Your task to perform on an android device: toggle translation in the chrome app Image 0: 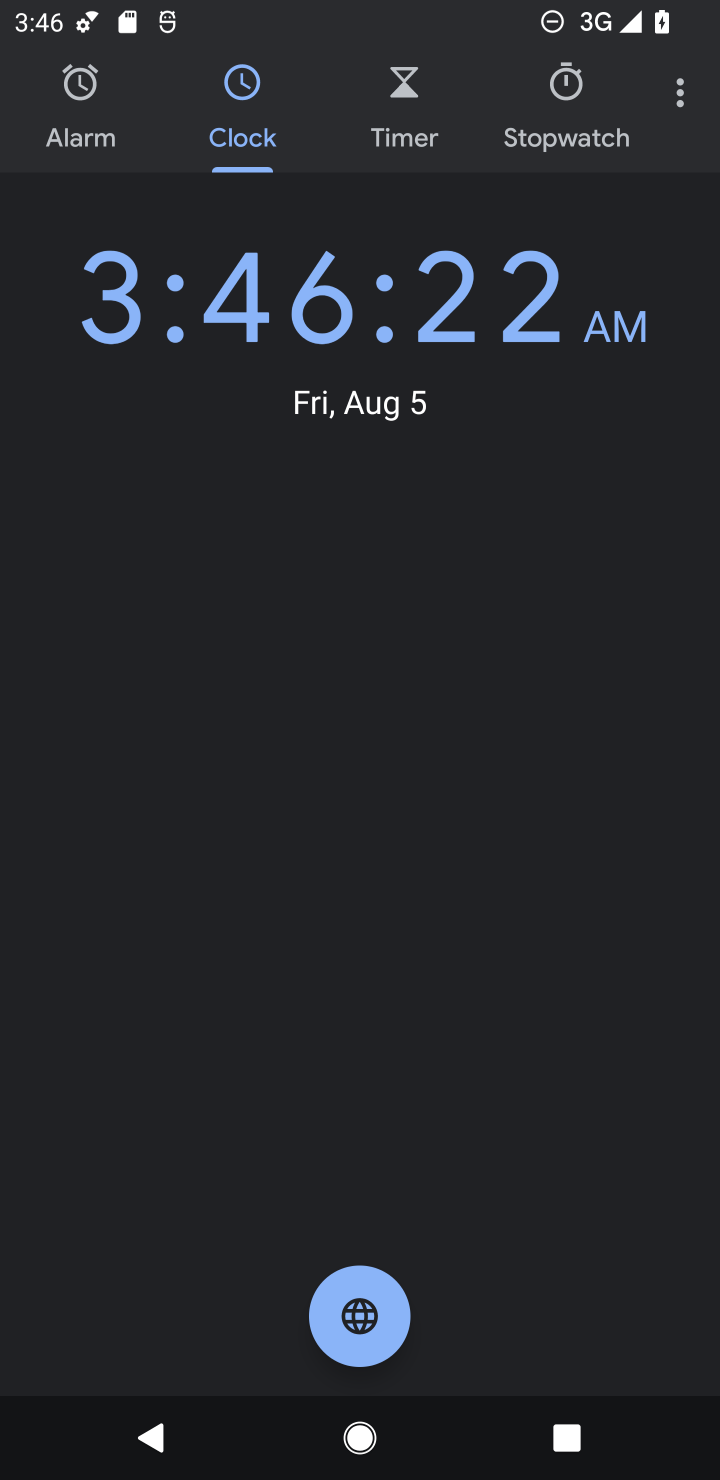
Step 0: press home button
Your task to perform on an android device: toggle translation in the chrome app Image 1: 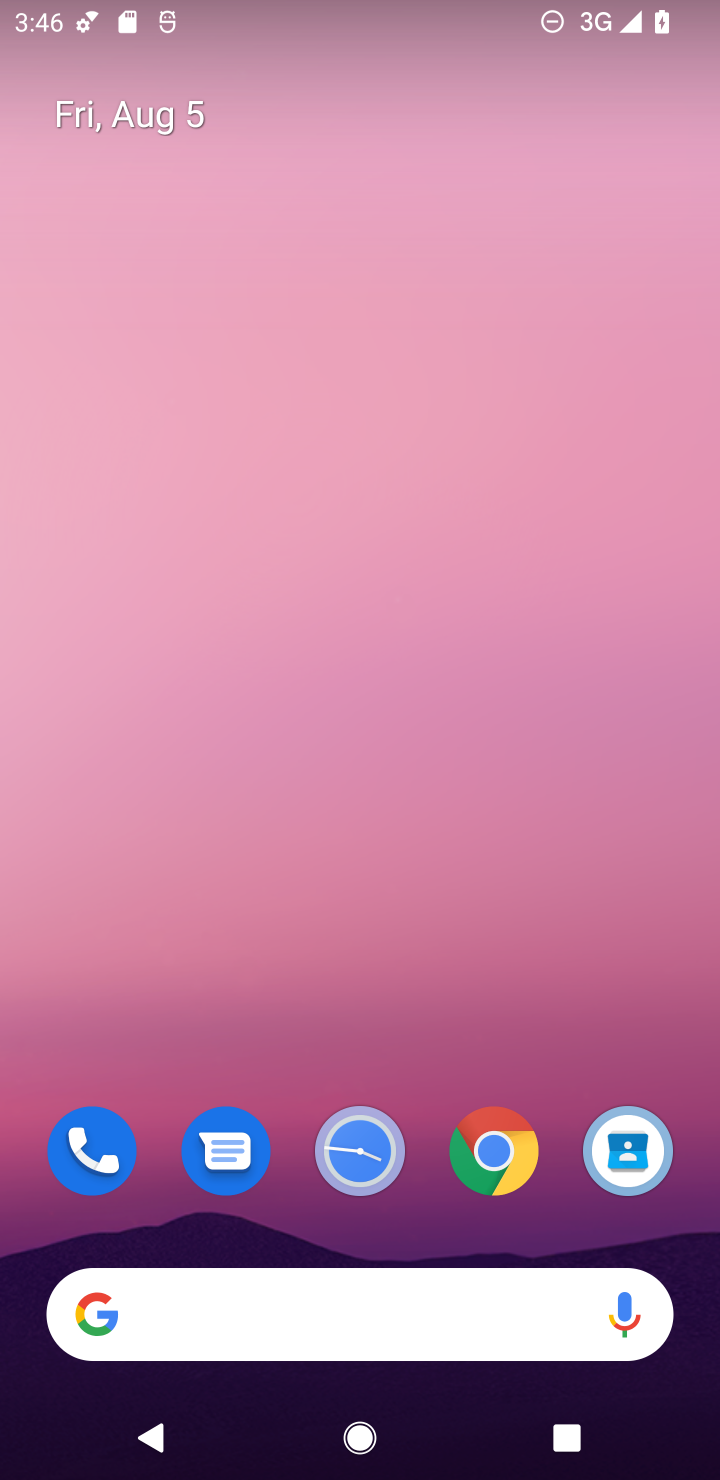
Step 1: click (513, 1160)
Your task to perform on an android device: toggle translation in the chrome app Image 2: 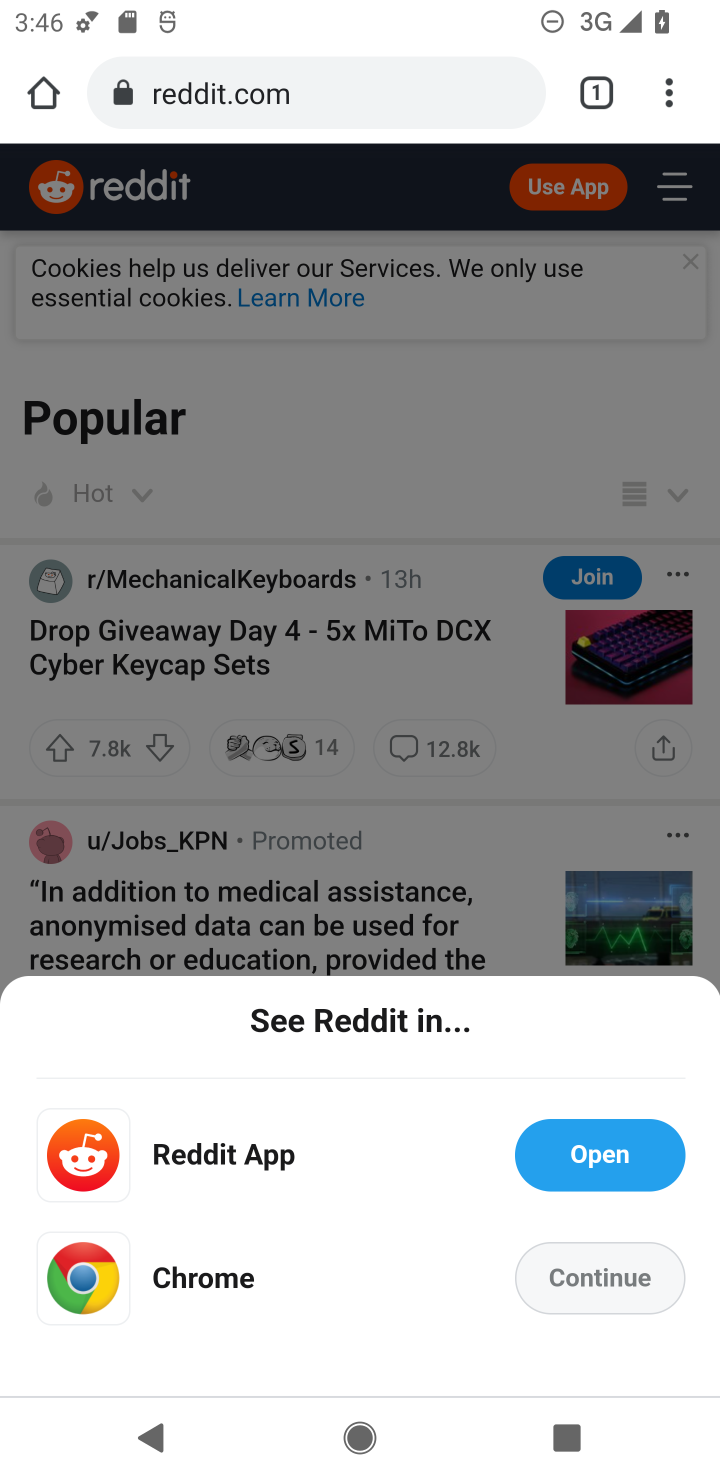
Step 2: click (682, 89)
Your task to perform on an android device: toggle translation in the chrome app Image 3: 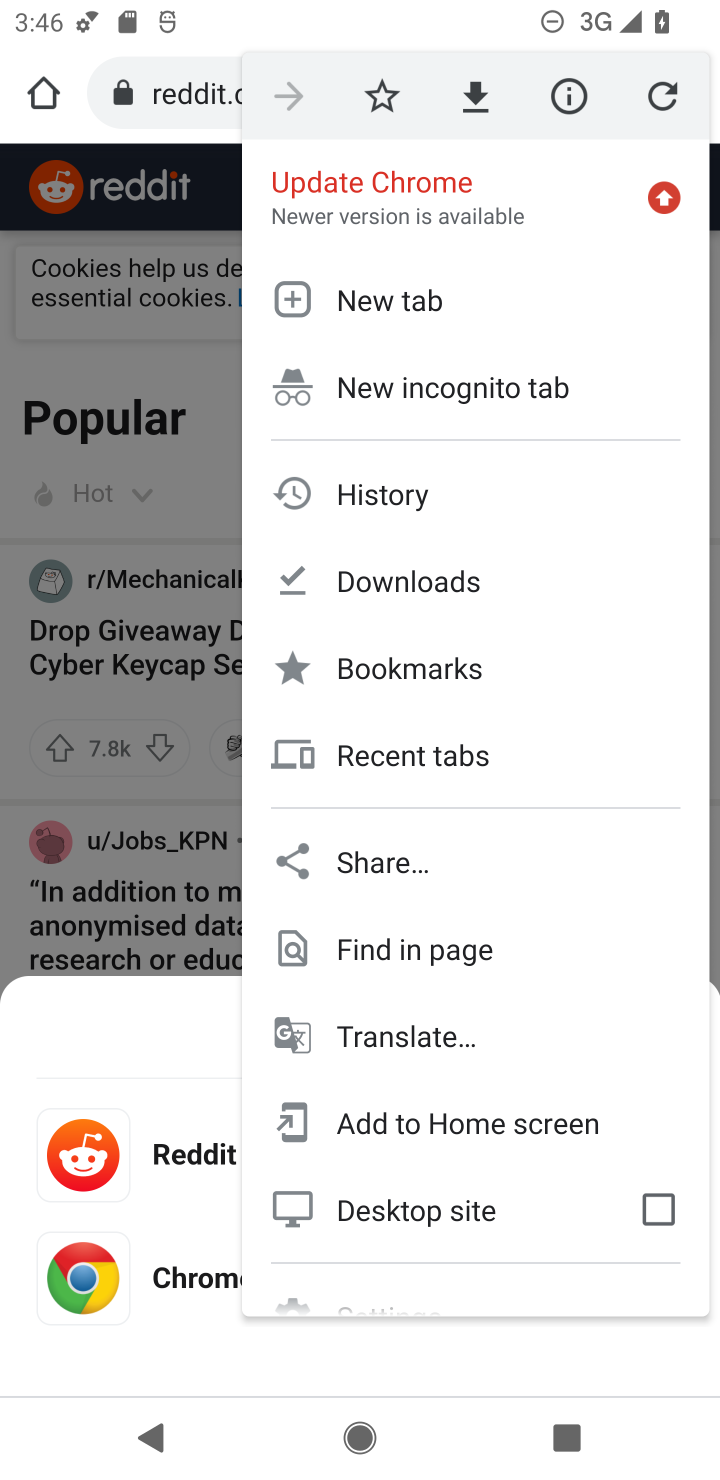
Step 3: click (452, 1299)
Your task to perform on an android device: toggle translation in the chrome app Image 4: 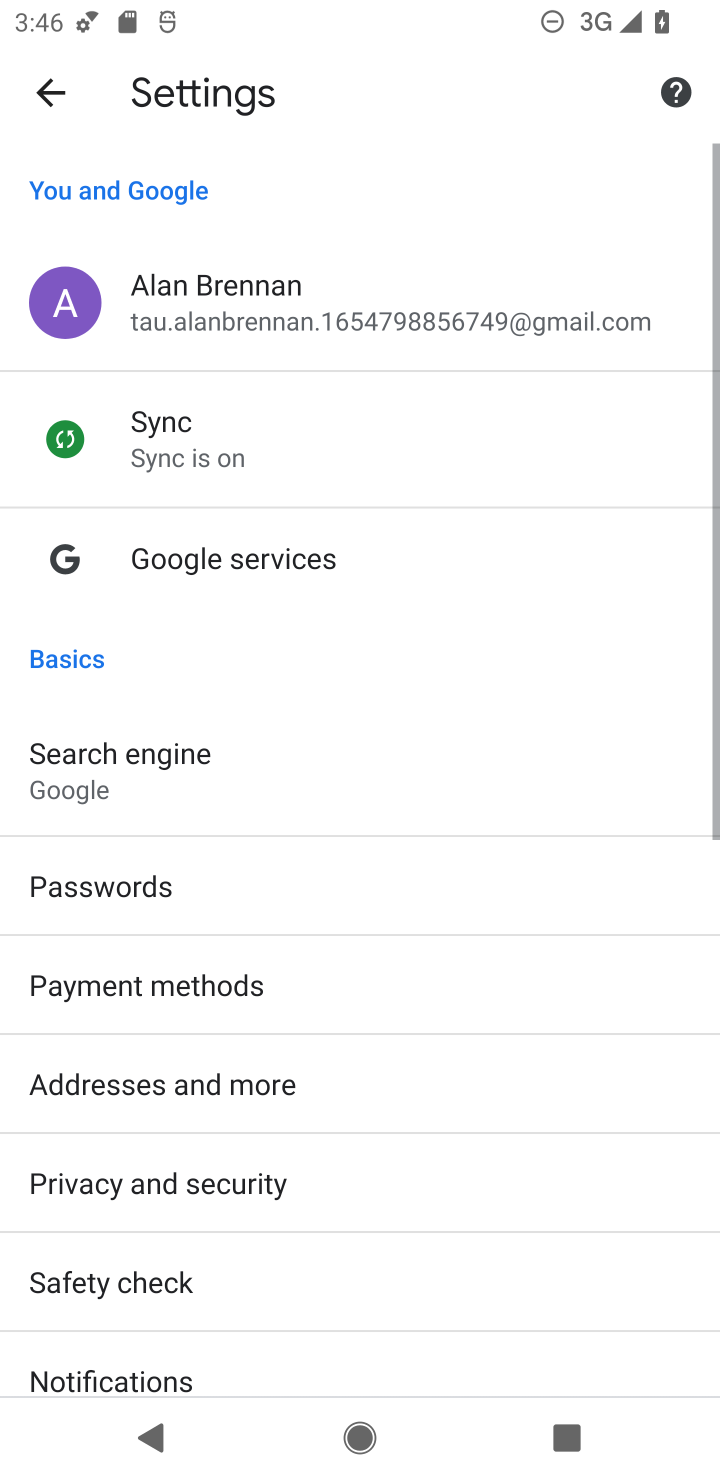
Step 4: drag from (155, 1270) to (87, 350)
Your task to perform on an android device: toggle translation in the chrome app Image 5: 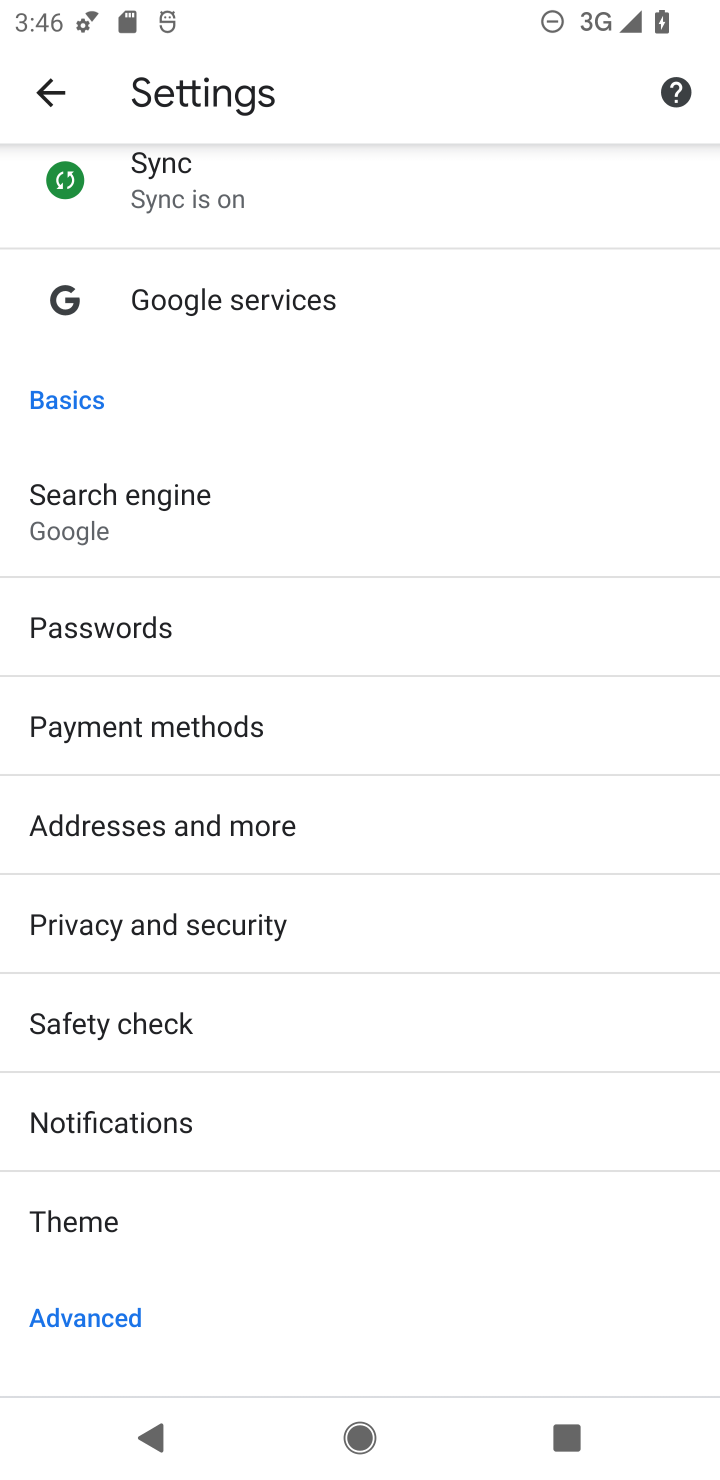
Step 5: drag from (273, 1192) to (163, 257)
Your task to perform on an android device: toggle translation in the chrome app Image 6: 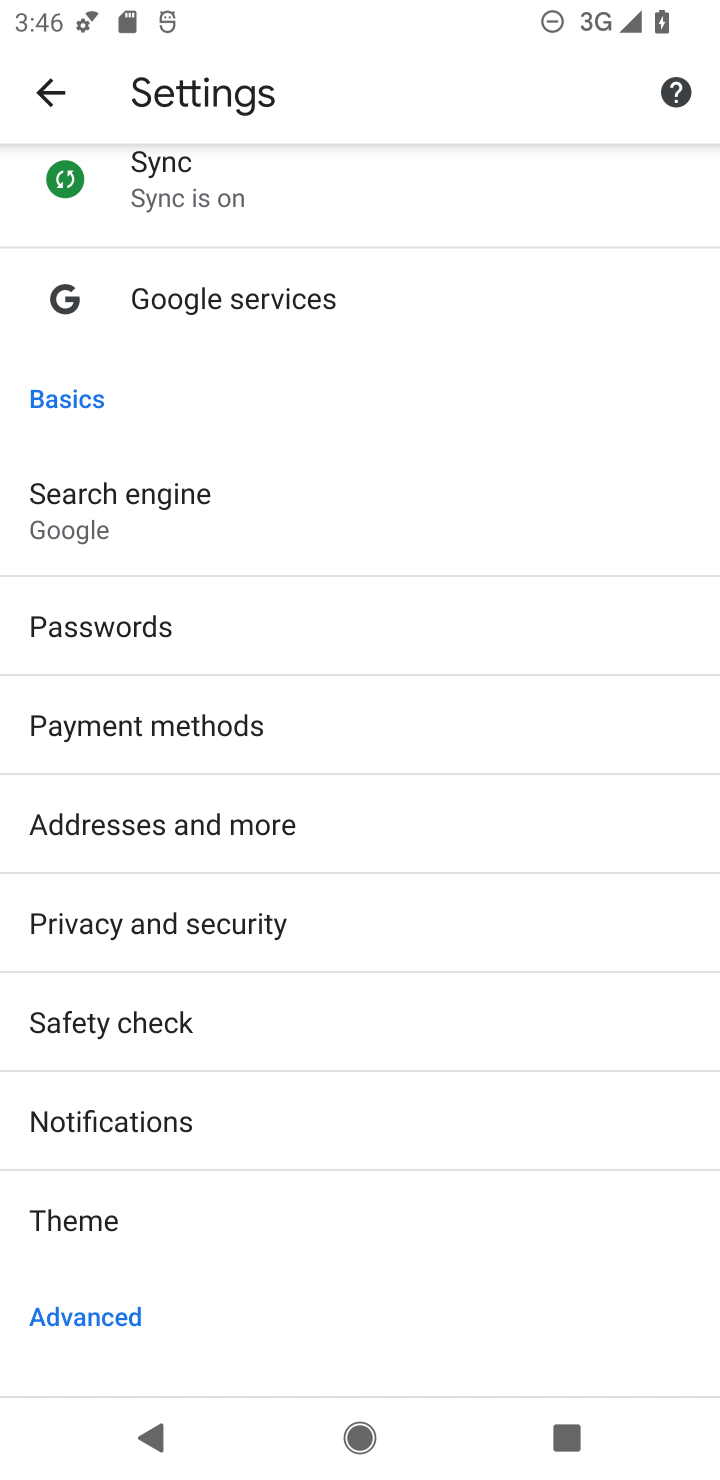
Step 6: drag from (232, 1333) to (195, 754)
Your task to perform on an android device: toggle translation in the chrome app Image 7: 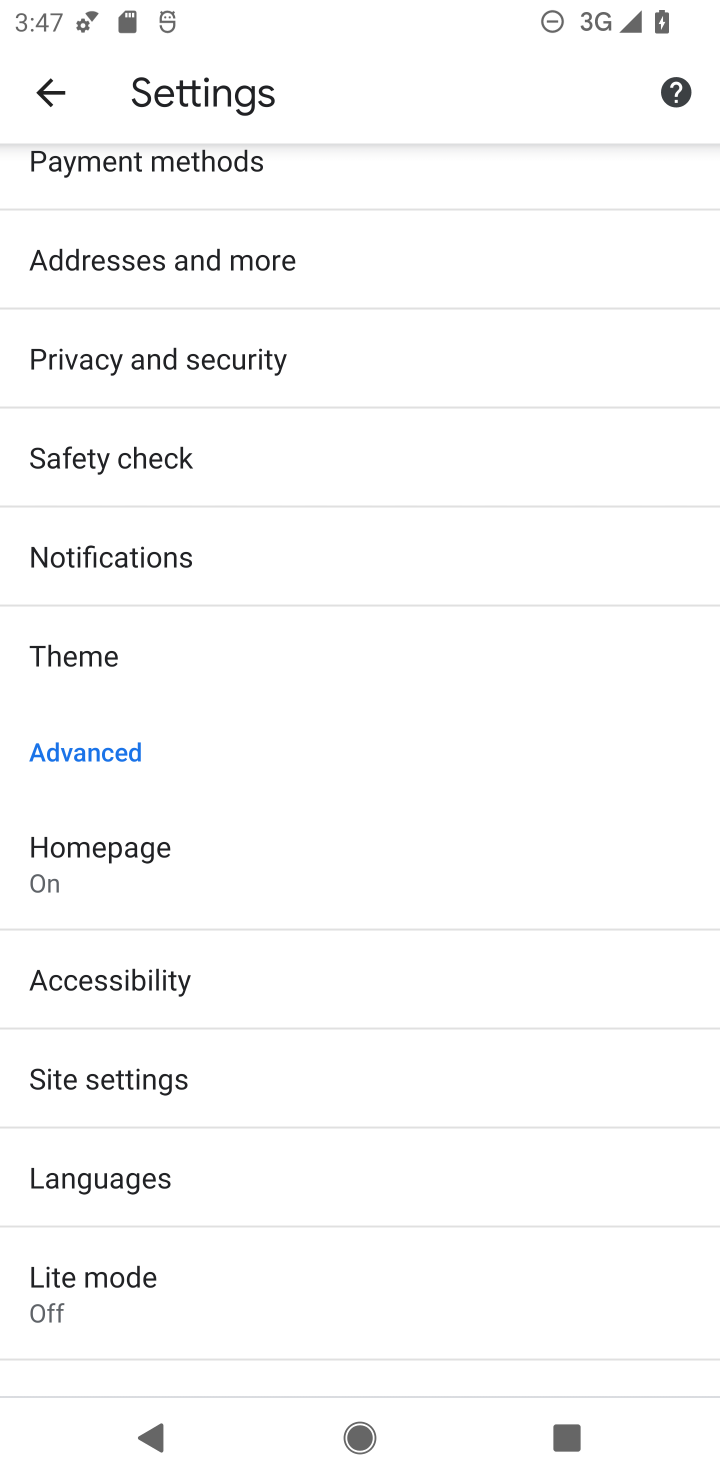
Step 7: click (348, 1166)
Your task to perform on an android device: toggle translation in the chrome app Image 8: 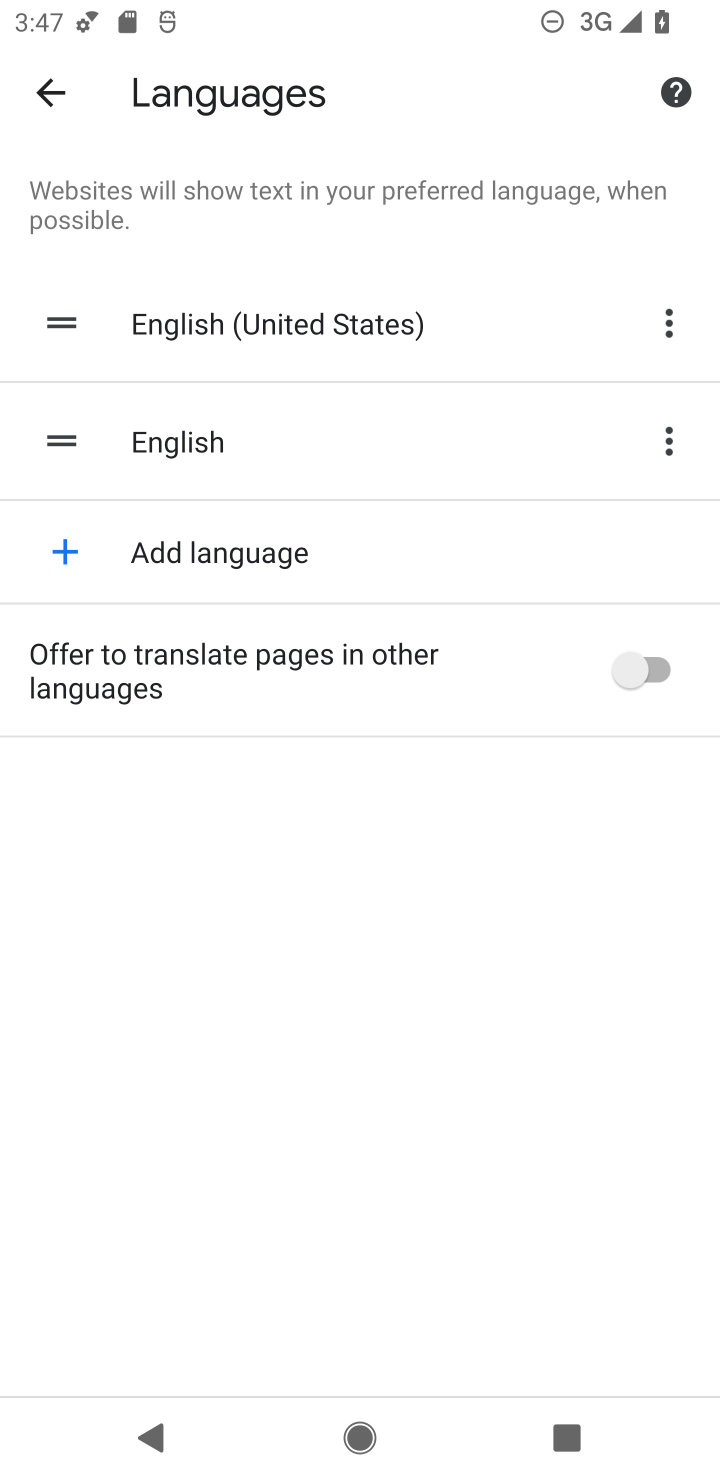
Step 8: click (645, 678)
Your task to perform on an android device: toggle translation in the chrome app Image 9: 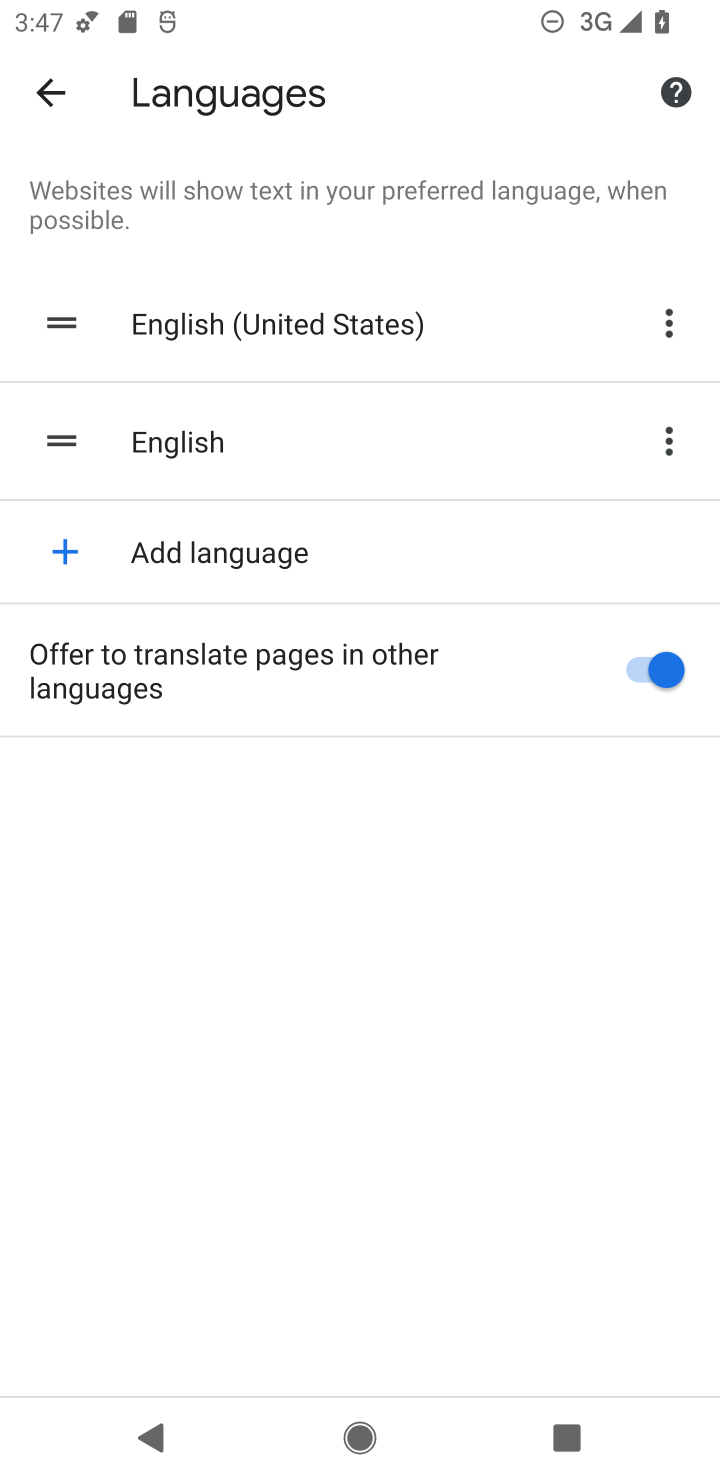
Step 9: task complete